Your task to perform on an android device: turn off translation in the chrome app Image 0: 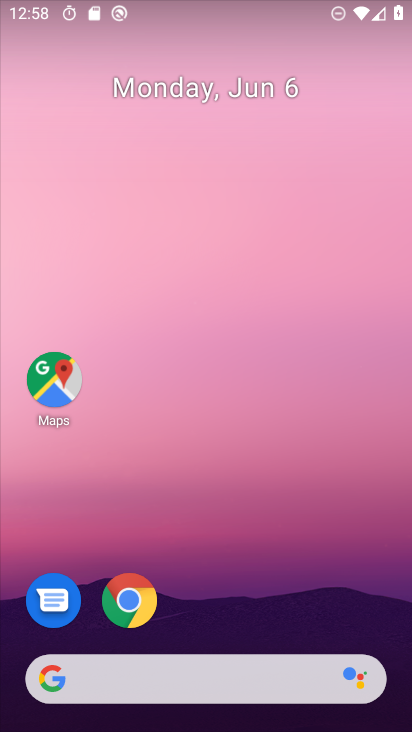
Step 0: click (149, 598)
Your task to perform on an android device: turn off translation in the chrome app Image 1: 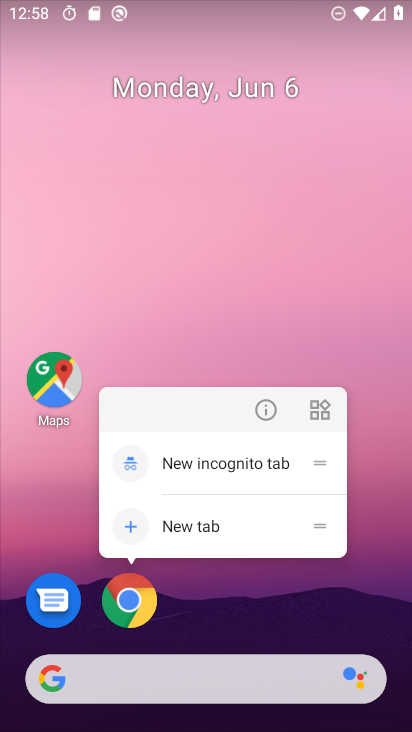
Step 1: click (149, 598)
Your task to perform on an android device: turn off translation in the chrome app Image 2: 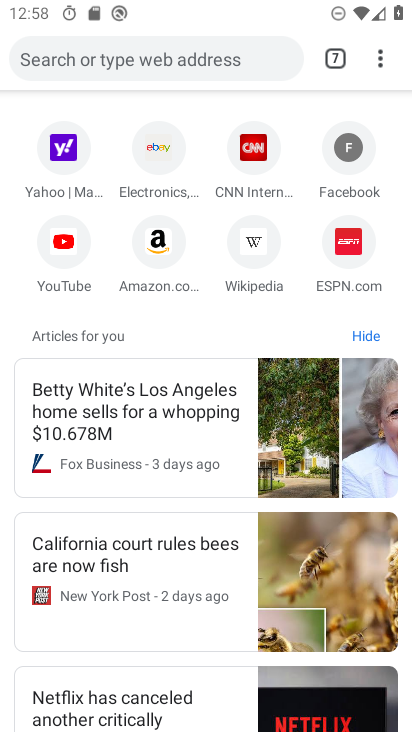
Step 2: click (380, 59)
Your task to perform on an android device: turn off translation in the chrome app Image 3: 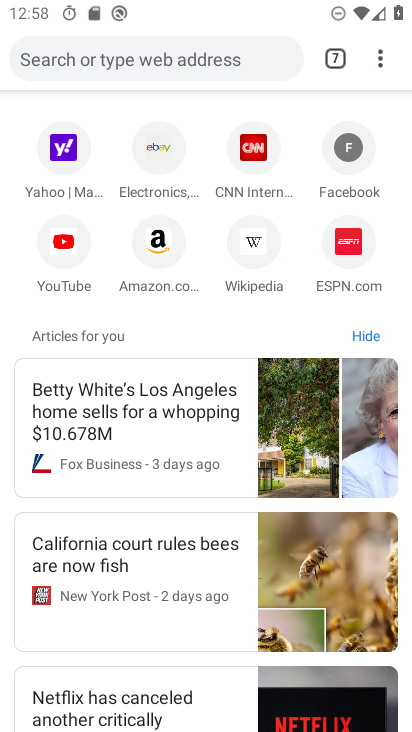
Step 3: click (374, 57)
Your task to perform on an android device: turn off translation in the chrome app Image 4: 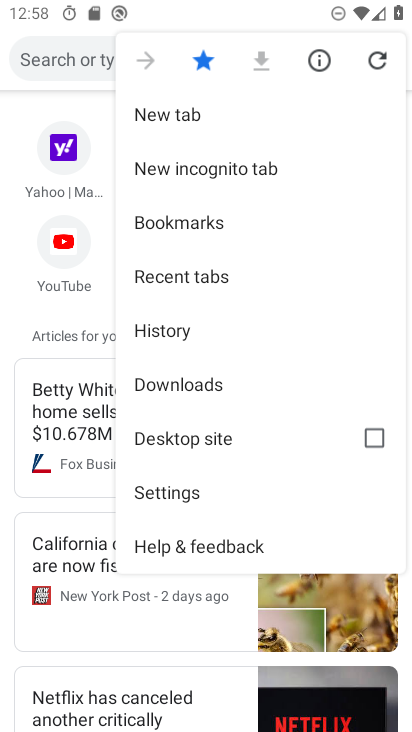
Step 4: drag from (210, 505) to (226, 302)
Your task to perform on an android device: turn off translation in the chrome app Image 5: 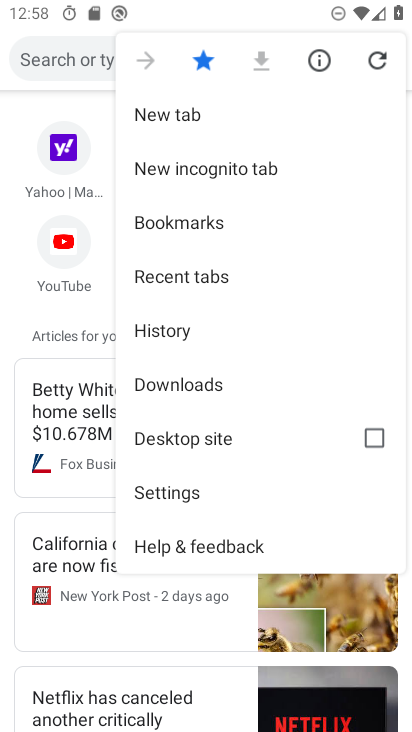
Step 5: click (161, 477)
Your task to perform on an android device: turn off translation in the chrome app Image 6: 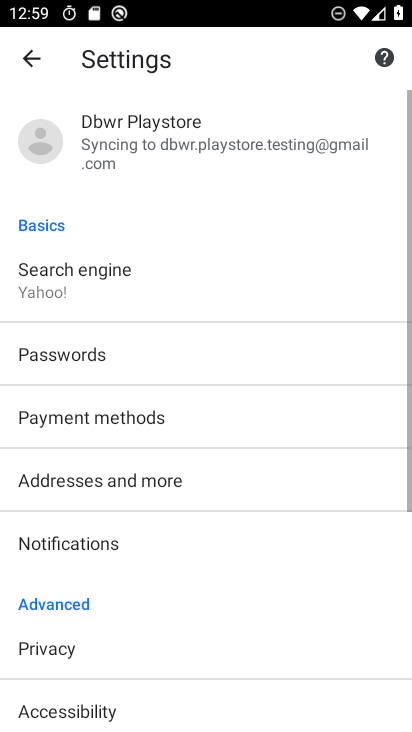
Step 6: drag from (122, 617) to (168, 373)
Your task to perform on an android device: turn off translation in the chrome app Image 7: 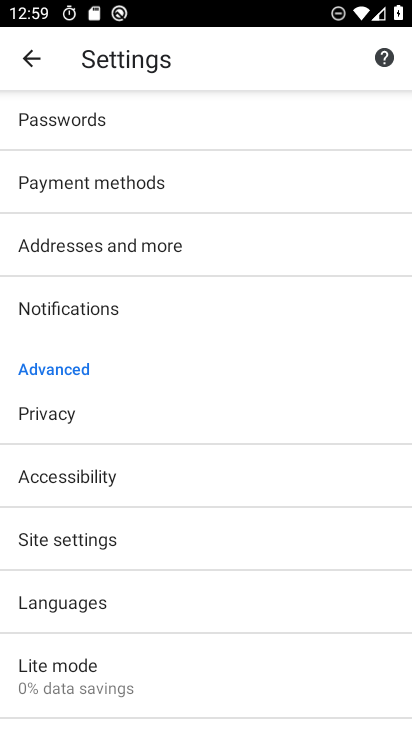
Step 7: click (90, 616)
Your task to perform on an android device: turn off translation in the chrome app Image 8: 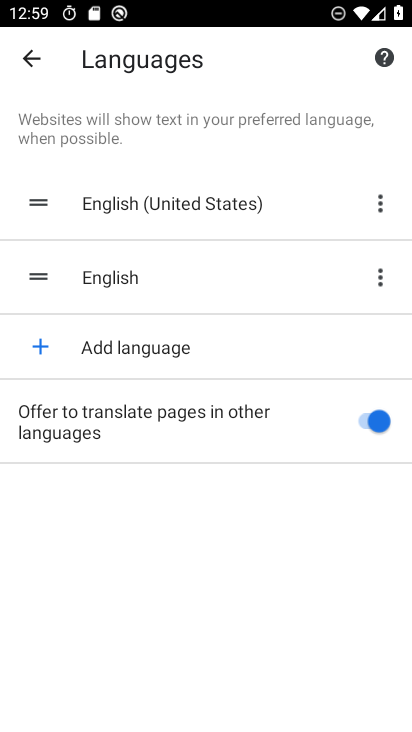
Step 8: click (367, 416)
Your task to perform on an android device: turn off translation in the chrome app Image 9: 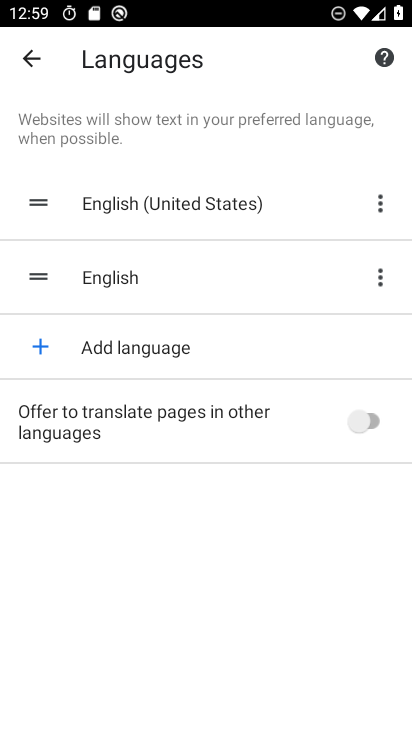
Step 9: task complete